Your task to perform on an android device: open app "Roku - Official Remote Control" (install if not already installed) Image 0: 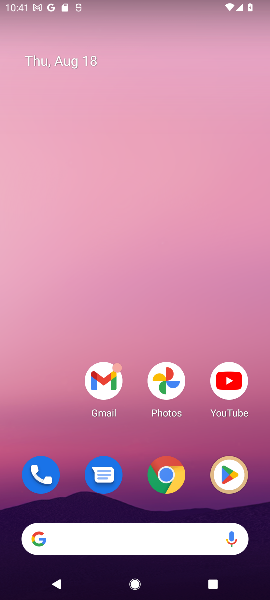
Step 0: drag from (133, 445) to (156, 7)
Your task to perform on an android device: open app "Roku - Official Remote Control" (install if not already installed) Image 1: 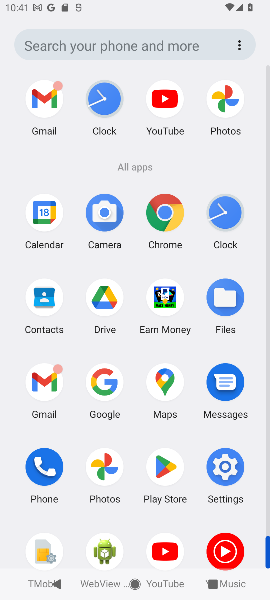
Step 1: click (162, 464)
Your task to perform on an android device: open app "Roku - Official Remote Control" (install if not already installed) Image 2: 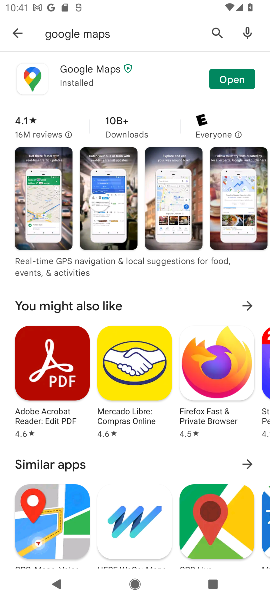
Step 2: click (219, 32)
Your task to perform on an android device: open app "Roku - Official Remote Control" (install if not already installed) Image 3: 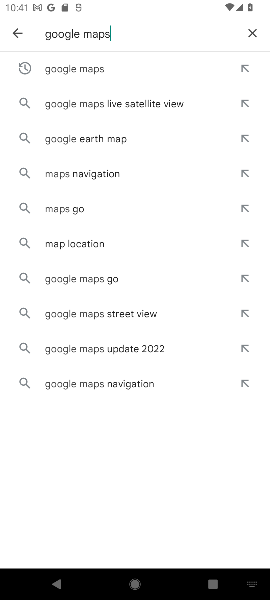
Step 3: click (249, 32)
Your task to perform on an android device: open app "Roku - Official Remote Control" (install if not already installed) Image 4: 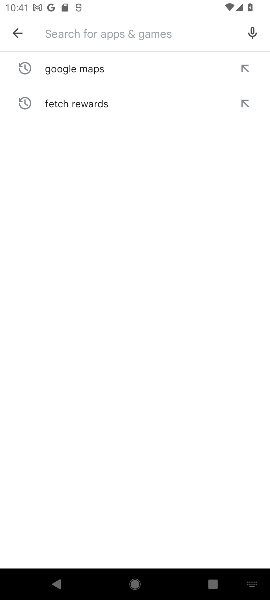
Step 4: type "Roku - Official Remote Control"
Your task to perform on an android device: open app "Roku - Official Remote Control" (install if not already installed) Image 5: 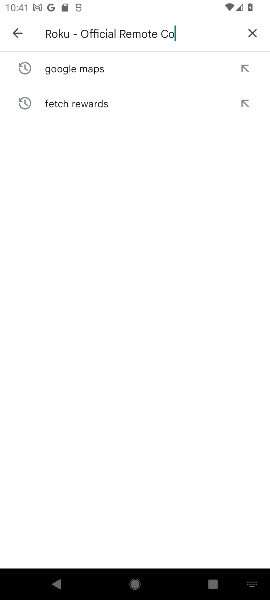
Step 5: type ""
Your task to perform on an android device: open app "Roku - Official Remote Control" (install if not already installed) Image 6: 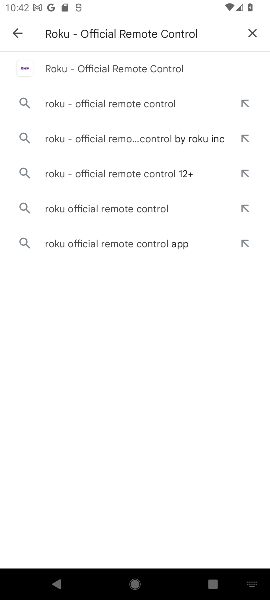
Step 6: click (92, 67)
Your task to perform on an android device: open app "Roku - Official Remote Control" (install if not already installed) Image 7: 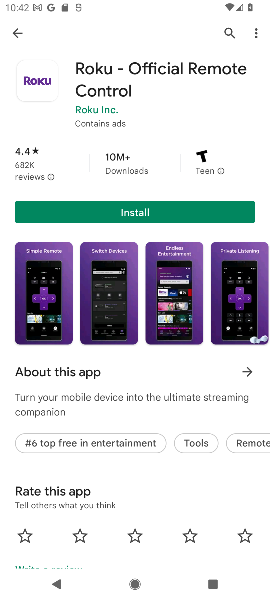
Step 7: click (136, 211)
Your task to perform on an android device: open app "Roku - Official Remote Control" (install if not already installed) Image 8: 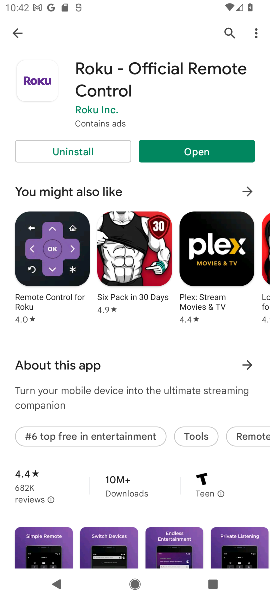
Step 8: click (198, 148)
Your task to perform on an android device: open app "Roku - Official Remote Control" (install if not already installed) Image 9: 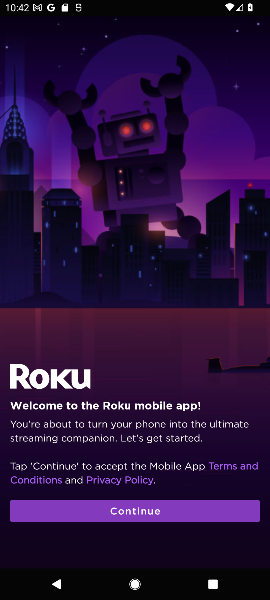
Step 9: click (136, 507)
Your task to perform on an android device: open app "Roku - Official Remote Control" (install if not already installed) Image 10: 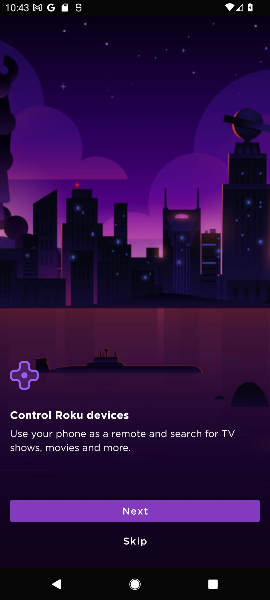
Step 10: click (137, 514)
Your task to perform on an android device: open app "Roku - Official Remote Control" (install if not already installed) Image 11: 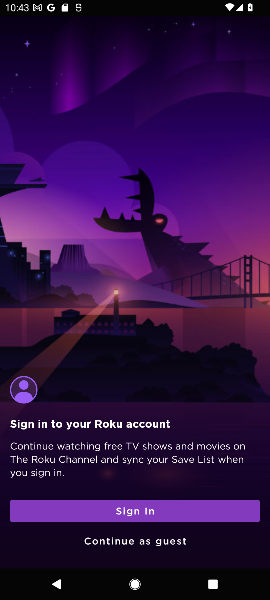
Step 11: click (141, 507)
Your task to perform on an android device: open app "Roku - Official Remote Control" (install if not already installed) Image 12: 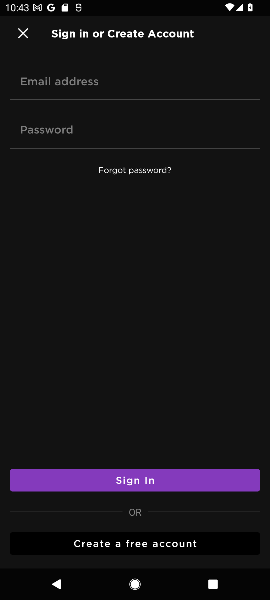
Step 12: click (140, 483)
Your task to perform on an android device: open app "Roku - Official Remote Control" (install if not already installed) Image 13: 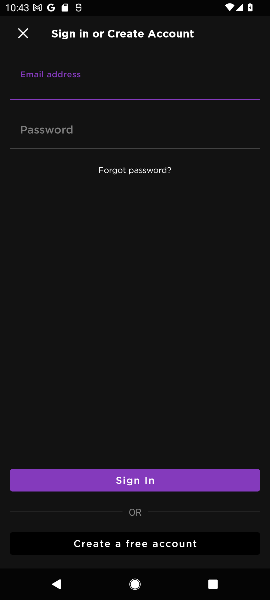
Step 13: task complete